Your task to perform on an android device: Search for the new nike air max shoes on Nike. Image 0: 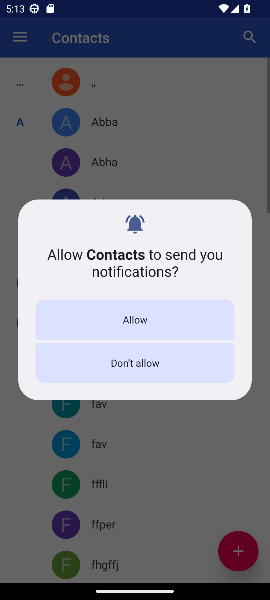
Step 0: press home button
Your task to perform on an android device: Search for the new nike air max shoes on Nike. Image 1: 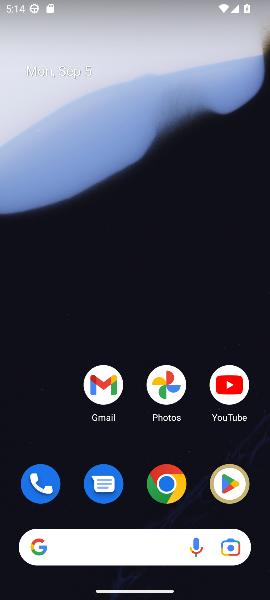
Step 1: click (158, 490)
Your task to perform on an android device: Search for the new nike air max shoes on Nike. Image 2: 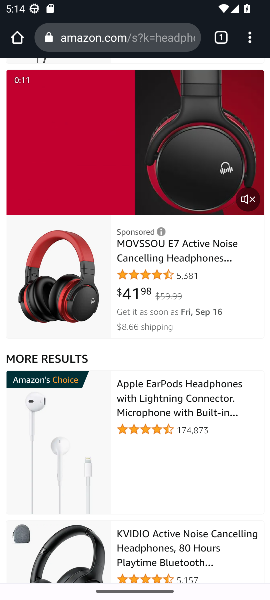
Step 2: click (157, 39)
Your task to perform on an android device: Search for the new nike air max shoes on Nike. Image 3: 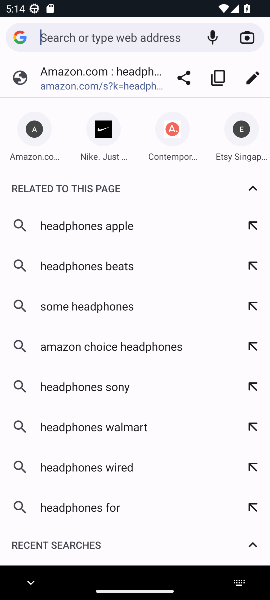
Step 3: press enter
Your task to perform on an android device: Search for the new nike air max shoes on Nike. Image 4: 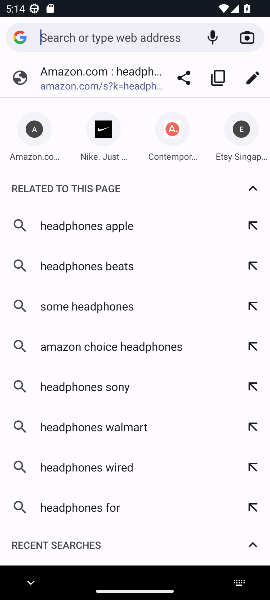
Step 4: type "Nike"
Your task to perform on an android device: Search for the new nike air max shoes on Nike. Image 5: 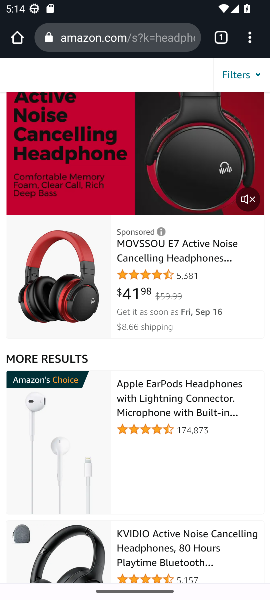
Step 5: click (162, 41)
Your task to perform on an android device: Search for the new nike air max shoes on Nike. Image 6: 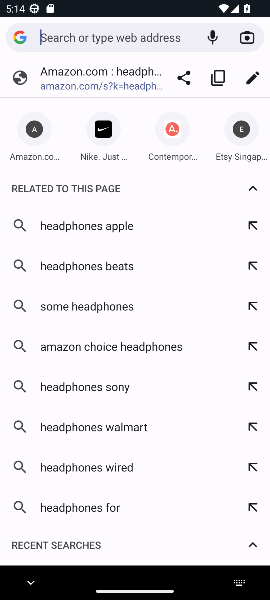
Step 6: type "Nike"
Your task to perform on an android device: Search for the new nike air max shoes on Nike. Image 7: 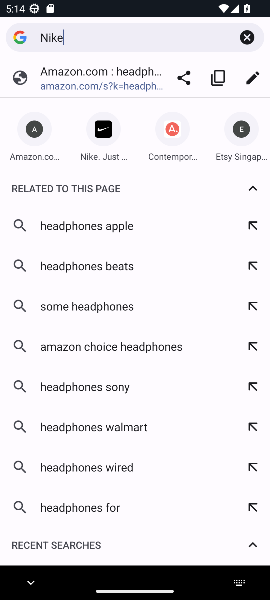
Step 7: press enter
Your task to perform on an android device: Search for the new nike air max shoes on Nike. Image 8: 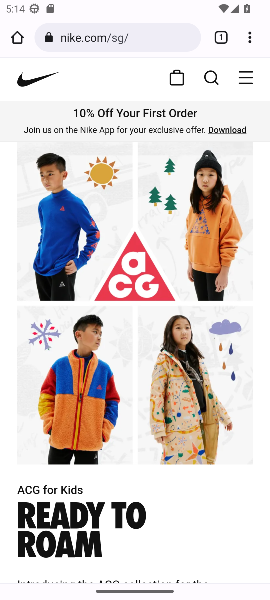
Step 8: click (200, 71)
Your task to perform on an android device: Search for the new nike air max shoes on Nike. Image 9: 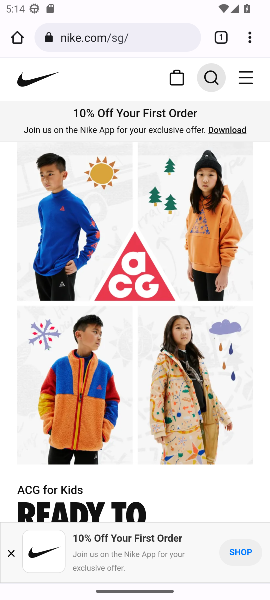
Step 9: click (199, 80)
Your task to perform on an android device: Search for the new nike air max shoes on Nike. Image 10: 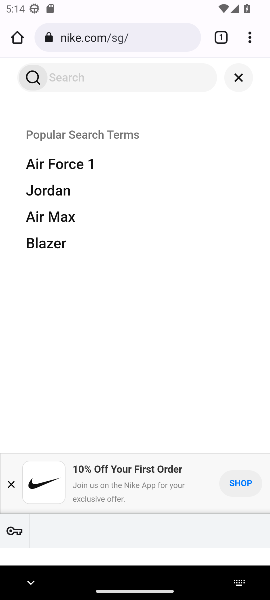
Step 10: click (82, 74)
Your task to perform on an android device: Search for the new nike air max shoes on Nike. Image 11: 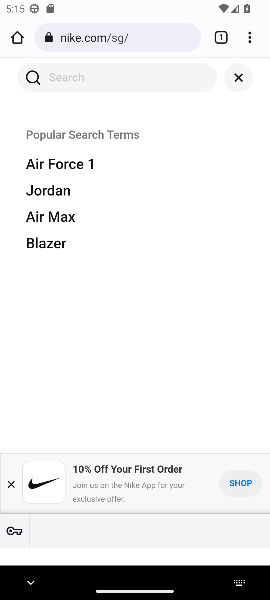
Step 11: type "nike air max shoes"
Your task to perform on an android device: Search for the new nike air max shoes on Nike. Image 12: 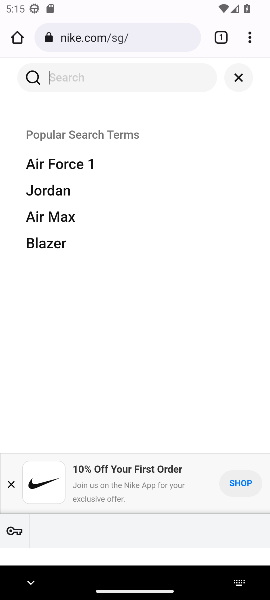
Step 12: press enter
Your task to perform on an android device: Search for the new nike air max shoes on Nike. Image 13: 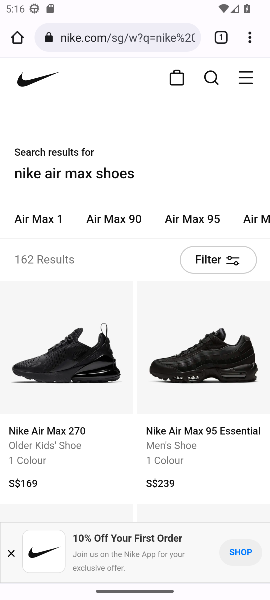
Step 13: task complete